Your task to perform on an android device: change notifications settings Image 0: 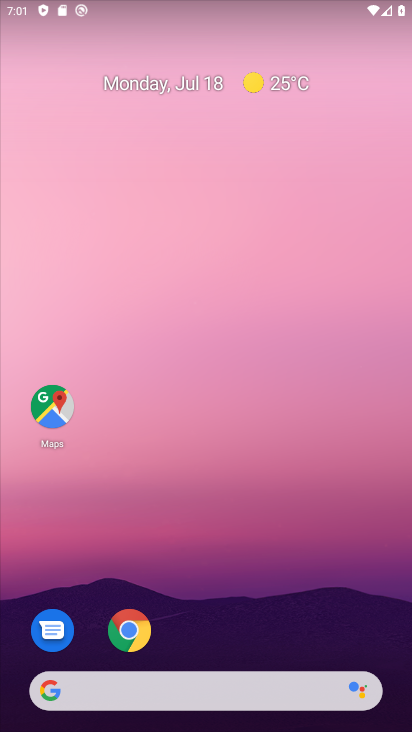
Step 0: drag from (280, 449) to (246, 113)
Your task to perform on an android device: change notifications settings Image 1: 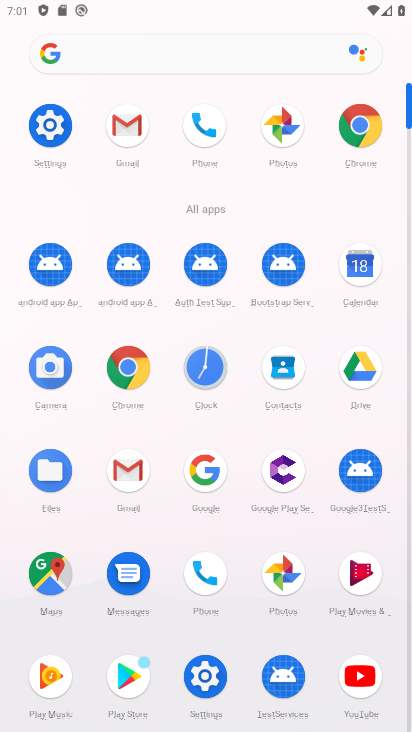
Step 1: click (202, 688)
Your task to perform on an android device: change notifications settings Image 2: 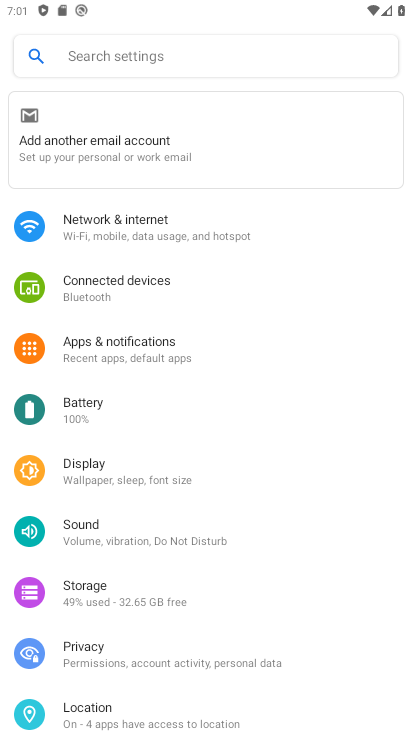
Step 2: click (150, 60)
Your task to perform on an android device: change notifications settings Image 3: 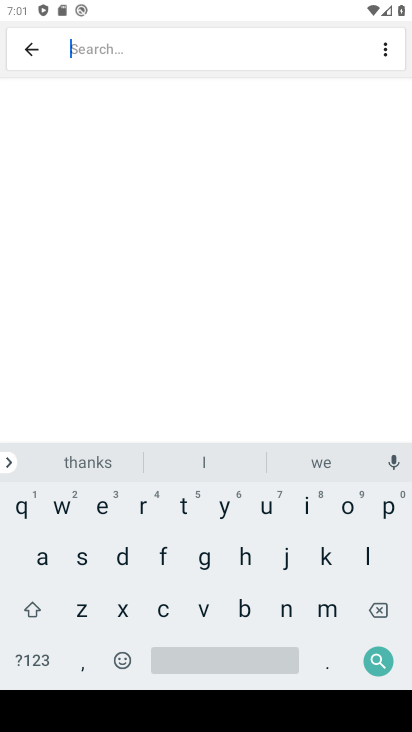
Step 3: click (283, 610)
Your task to perform on an android device: change notifications settings Image 4: 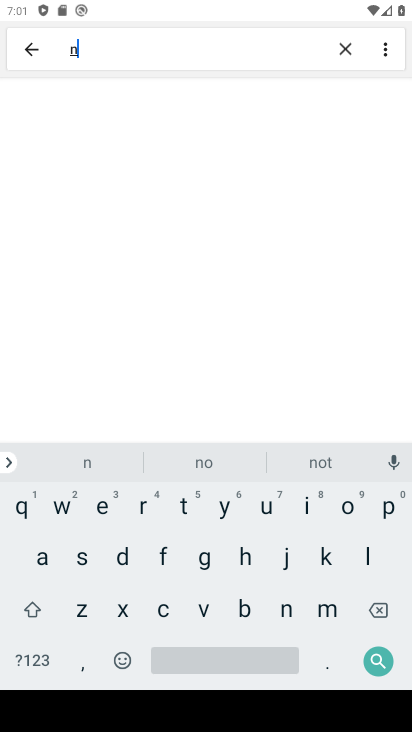
Step 4: click (342, 512)
Your task to perform on an android device: change notifications settings Image 5: 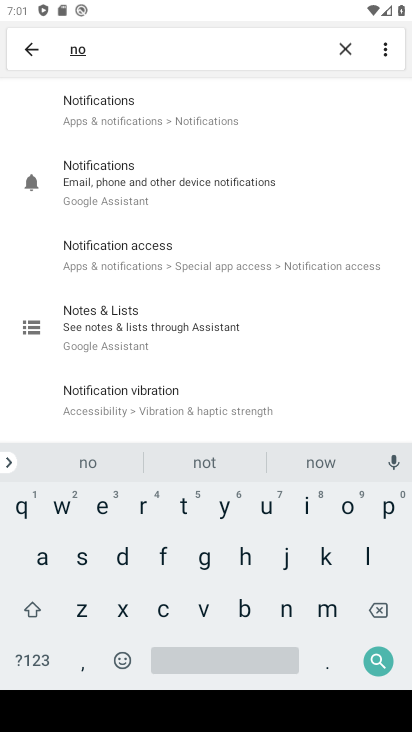
Step 5: click (137, 125)
Your task to perform on an android device: change notifications settings Image 6: 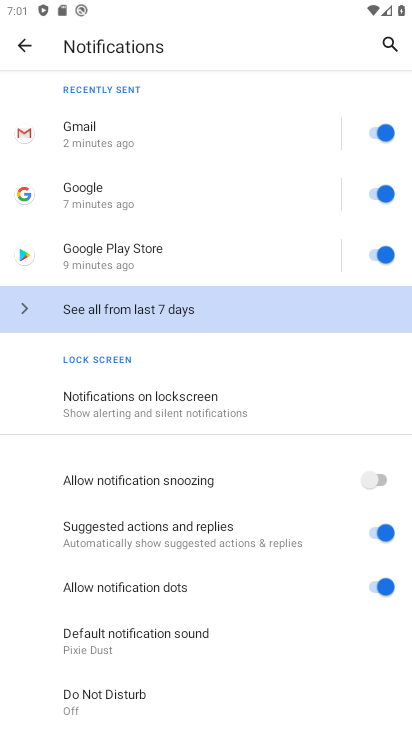
Step 6: click (125, 404)
Your task to perform on an android device: change notifications settings Image 7: 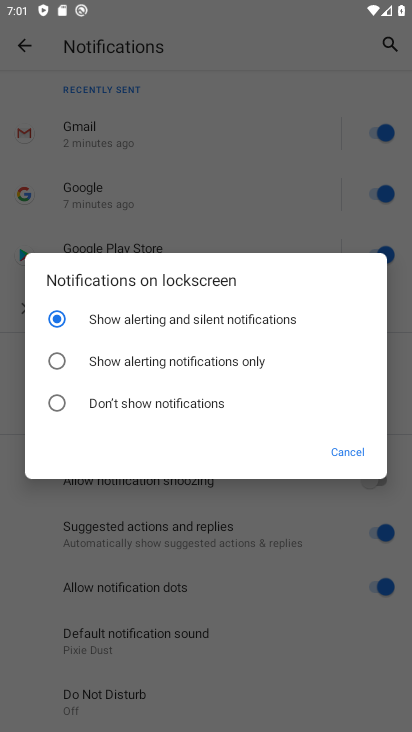
Step 7: click (186, 367)
Your task to perform on an android device: change notifications settings Image 8: 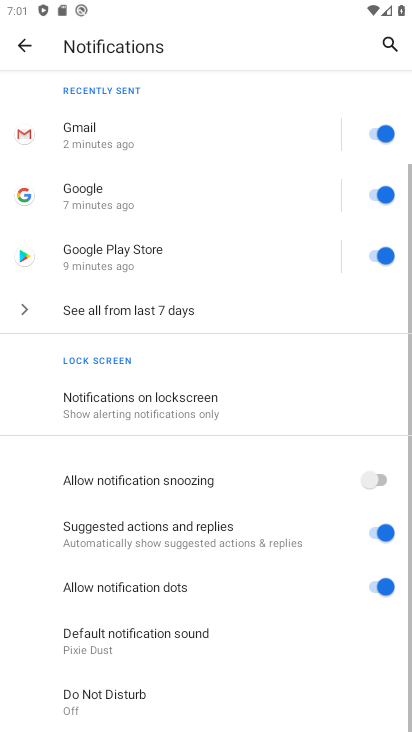
Step 8: task complete